Your task to perform on an android device: Add apple airpods pro to the cart on target.com Image 0: 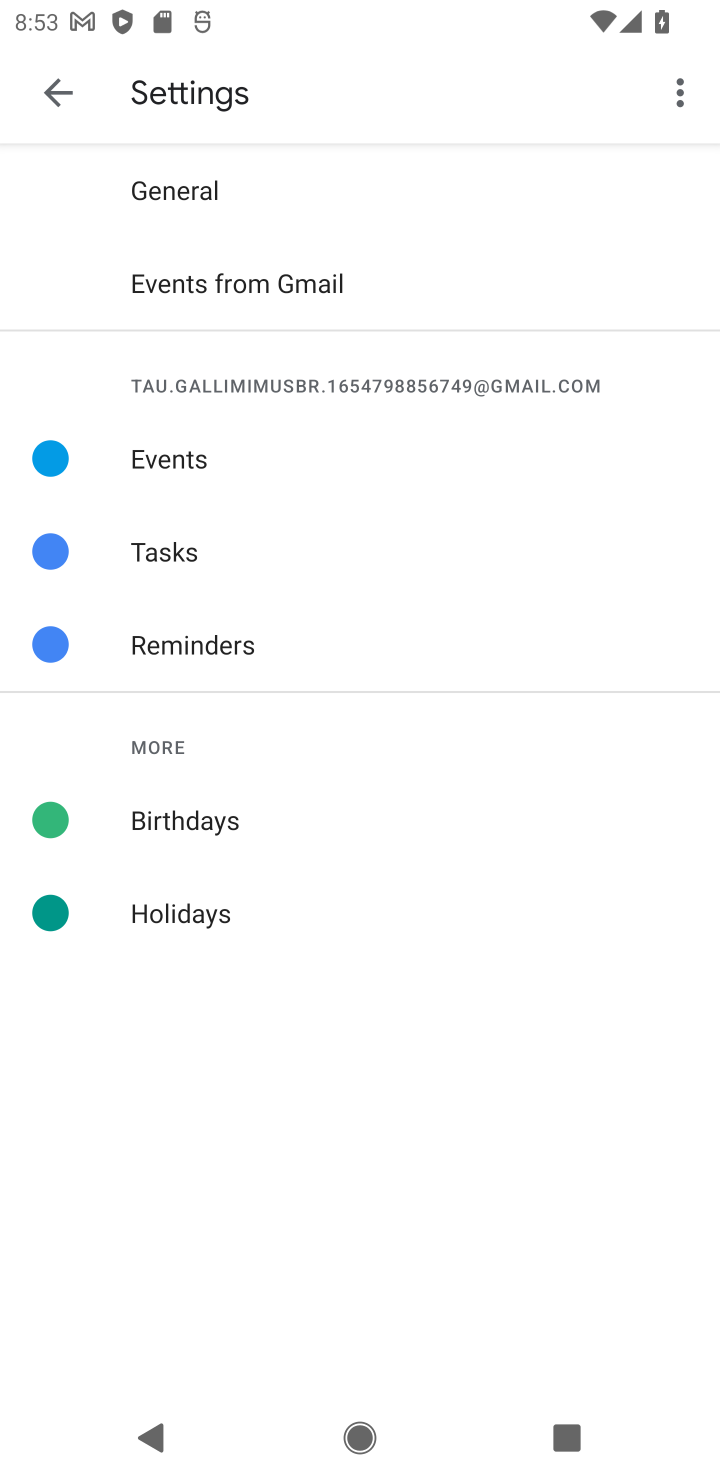
Step 0: press home button
Your task to perform on an android device: Add apple airpods pro to the cart on target.com Image 1: 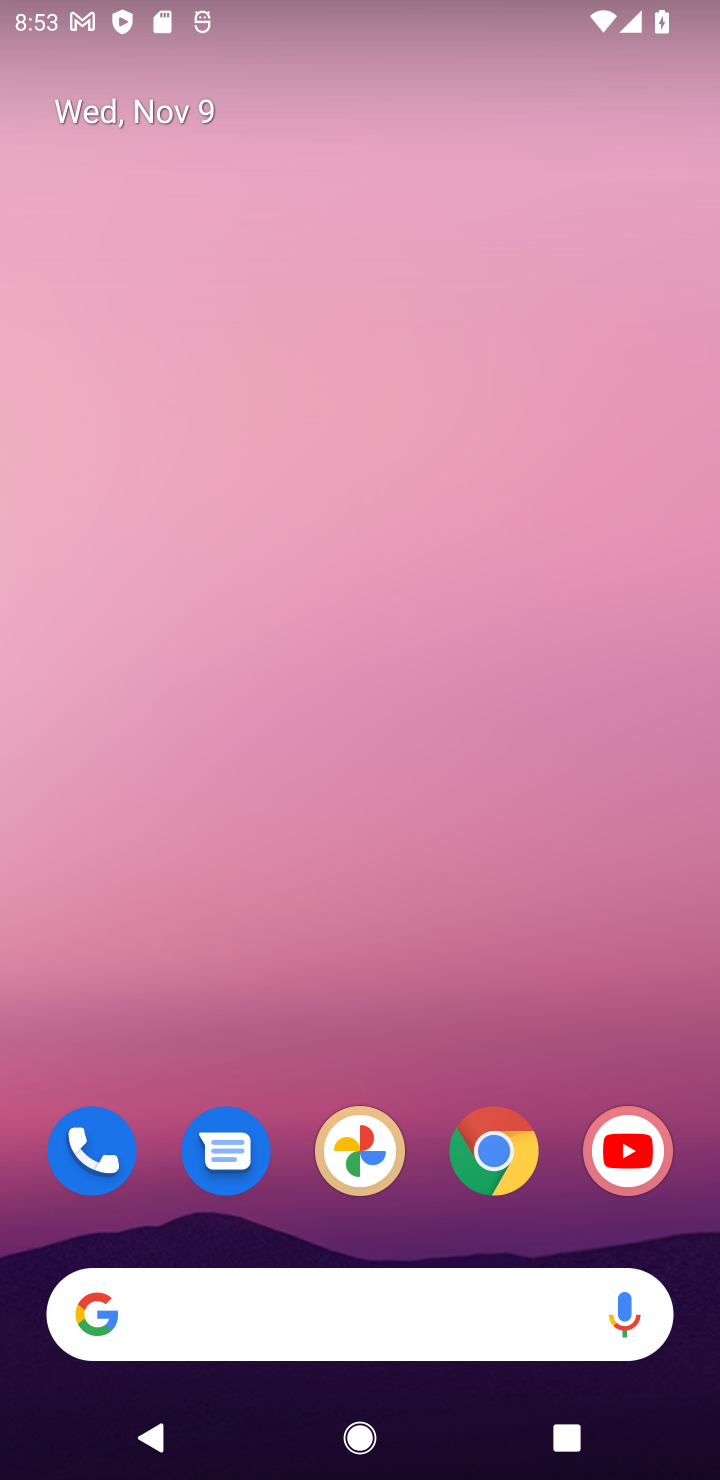
Step 1: click (484, 1150)
Your task to perform on an android device: Add apple airpods pro to the cart on target.com Image 2: 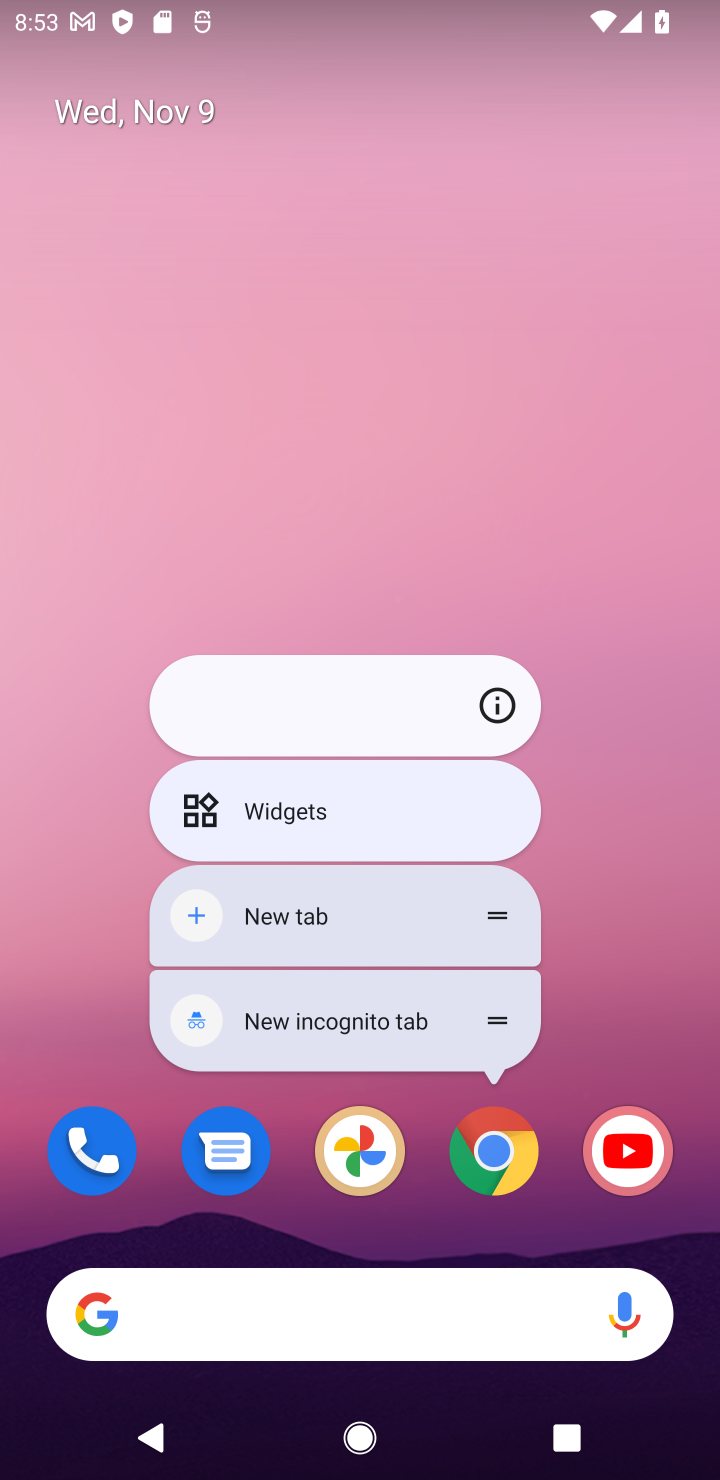
Step 2: click (513, 1174)
Your task to perform on an android device: Add apple airpods pro to the cart on target.com Image 3: 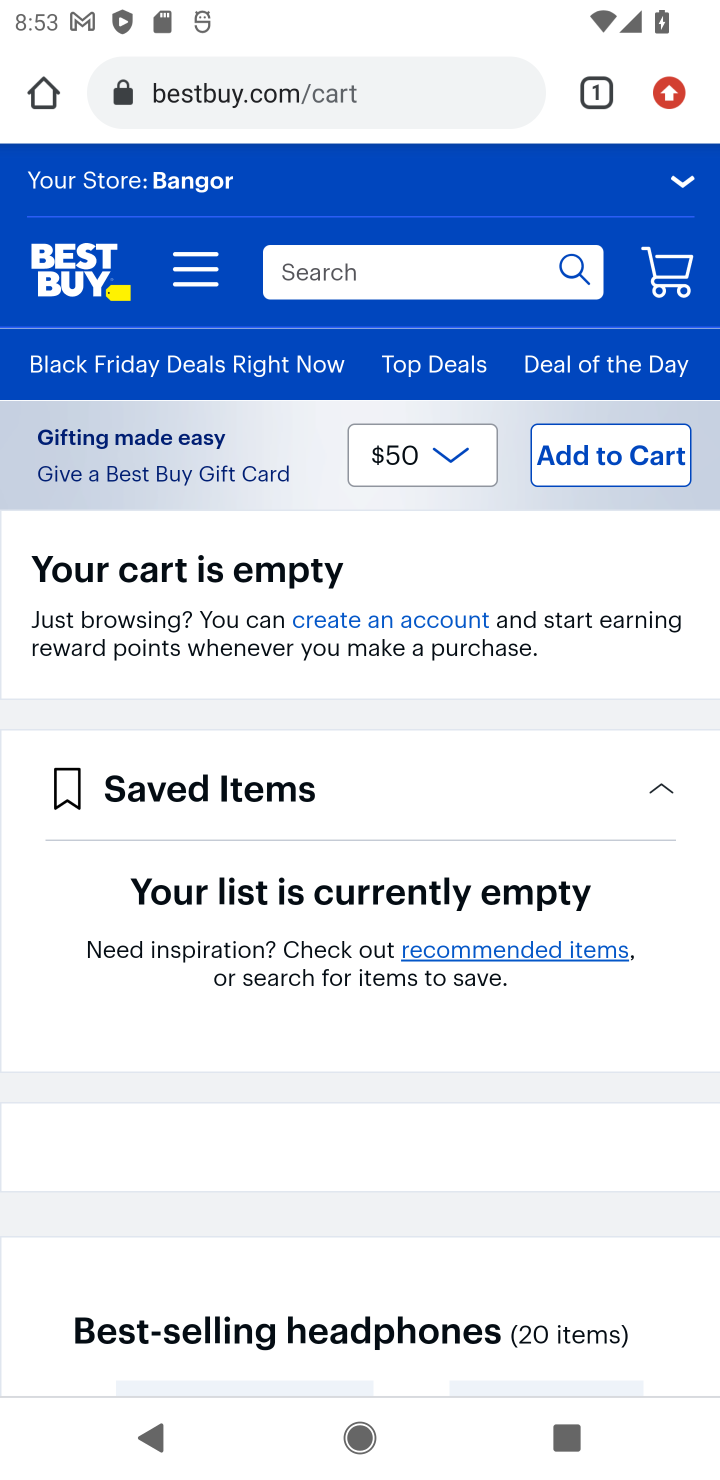
Step 3: click (226, 103)
Your task to perform on an android device: Add apple airpods pro to the cart on target.com Image 4: 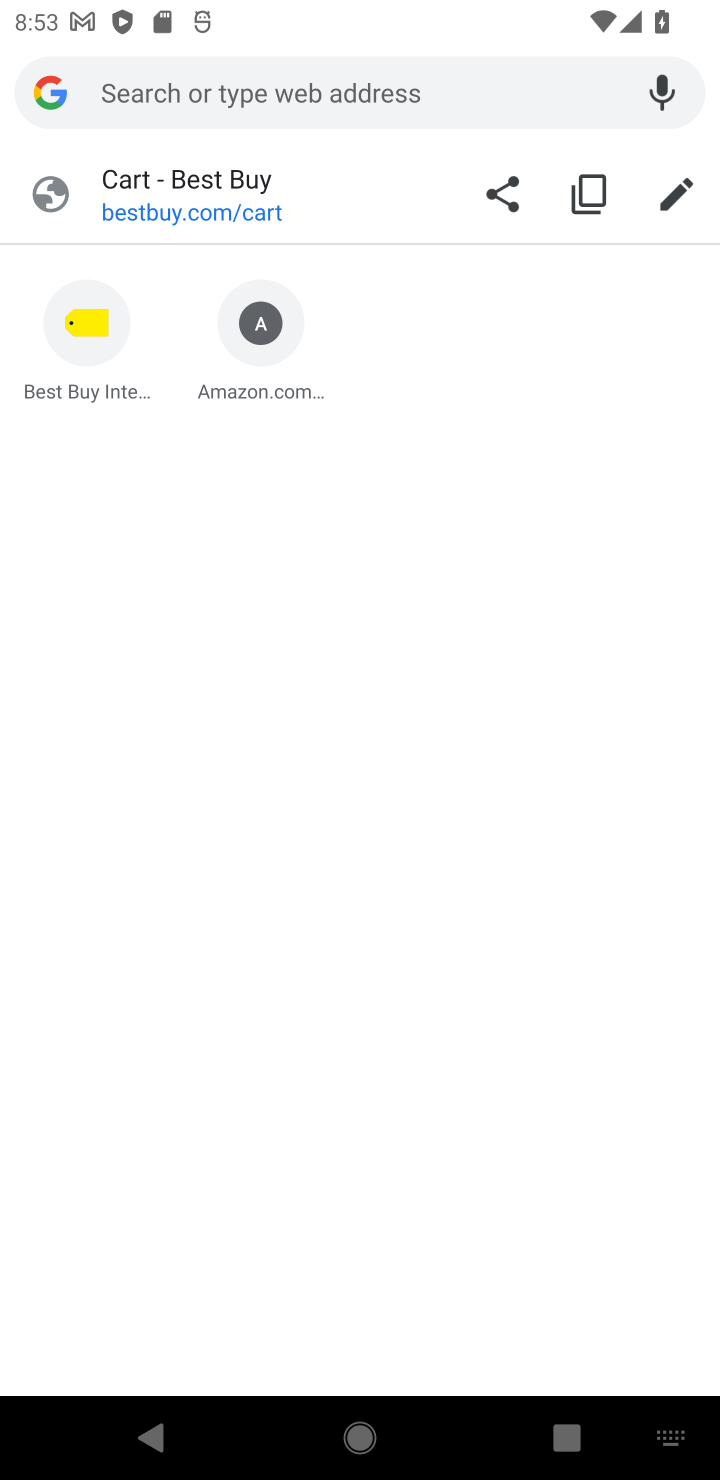
Step 4: type "target.com"
Your task to perform on an android device: Add apple airpods pro to the cart on target.com Image 5: 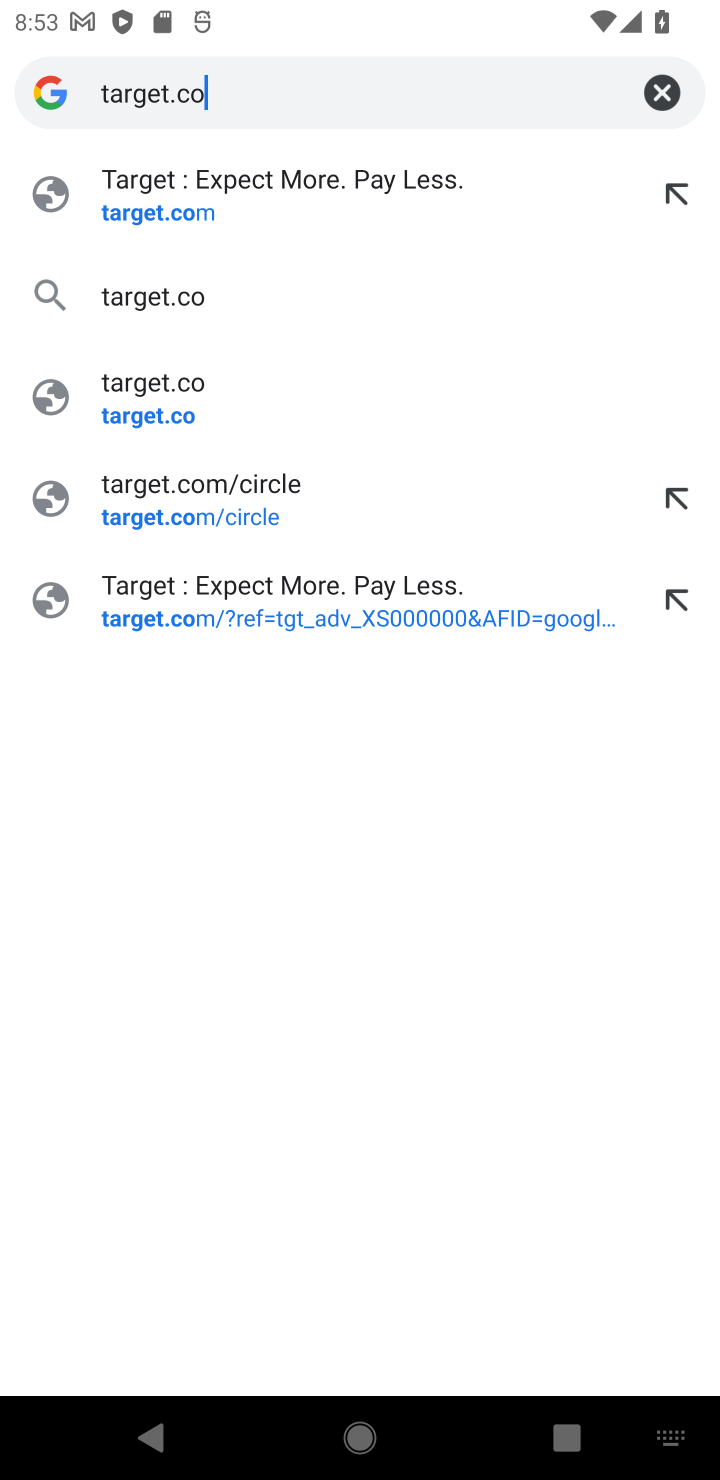
Step 5: press enter
Your task to perform on an android device: Add apple airpods pro to the cart on target.com Image 6: 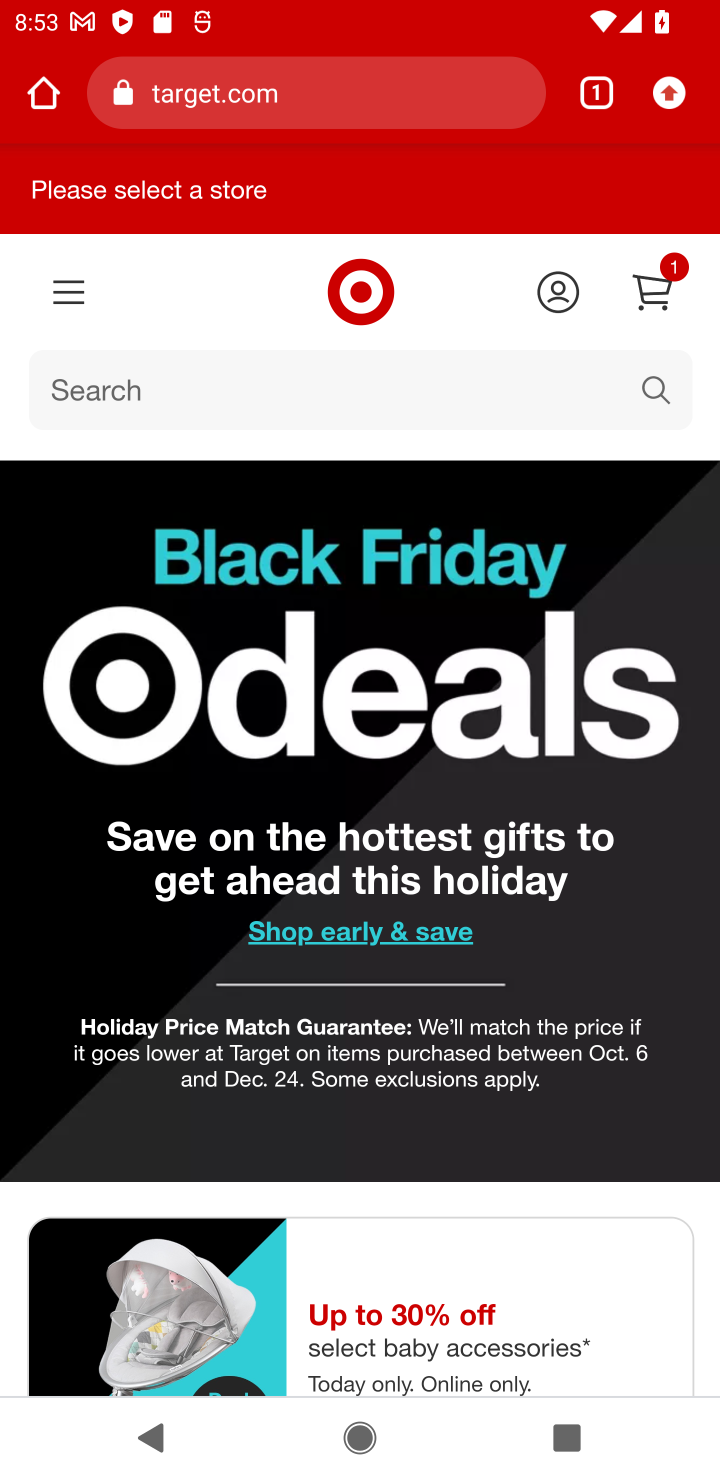
Step 6: click (307, 418)
Your task to perform on an android device: Add apple airpods pro to the cart on target.com Image 7: 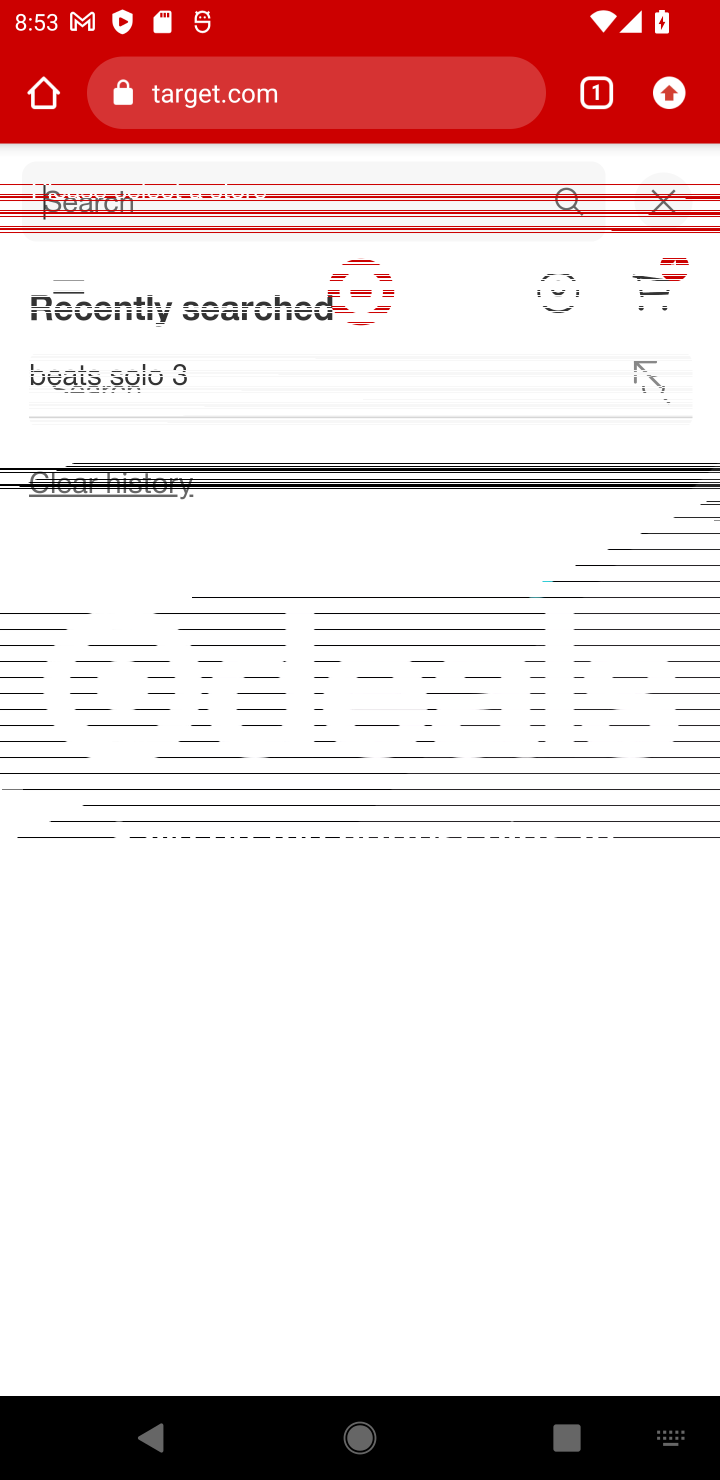
Step 7: type "apple airpods pro"
Your task to perform on an android device: Add apple airpods pro to the cart on target.com Image 8: 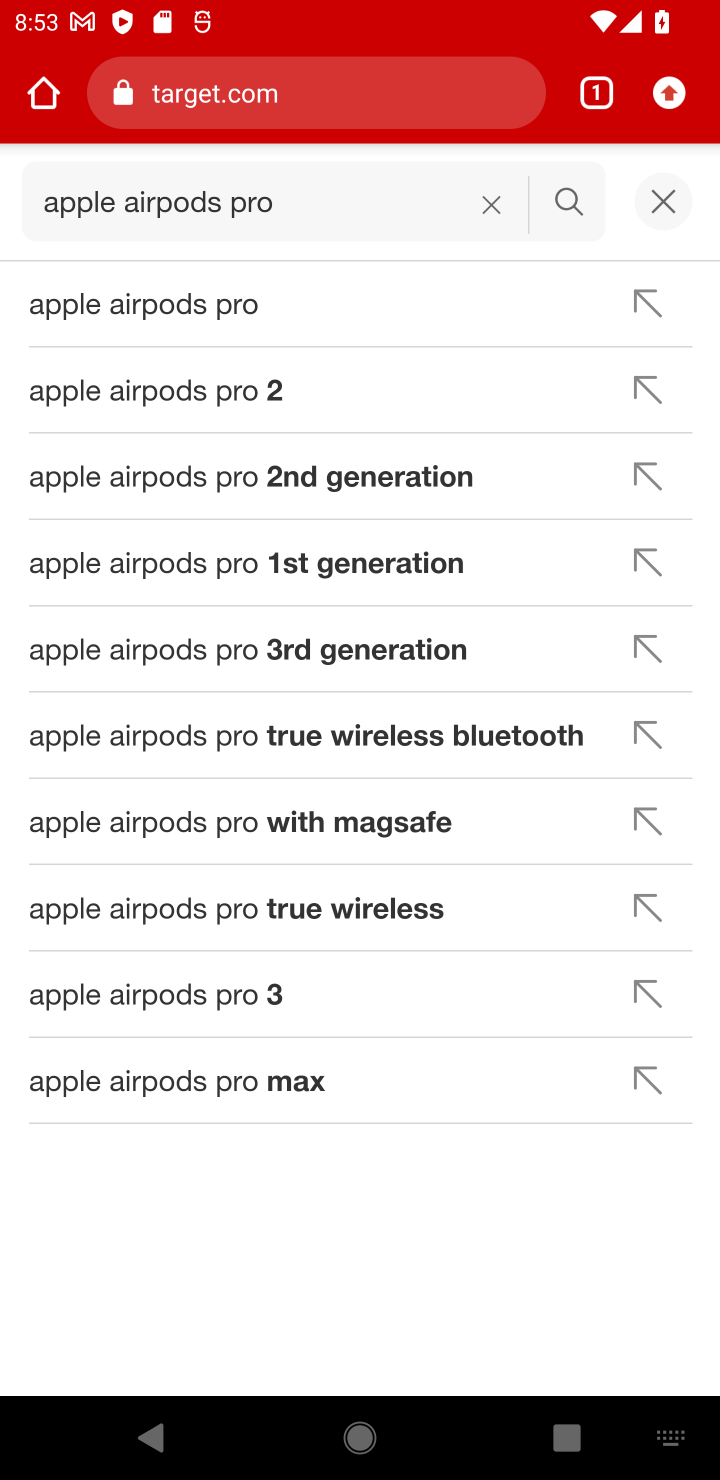
Step 8: press enter
Your task to perform on an android device: Add apple airpods pro to the cart on target.com Image 9: 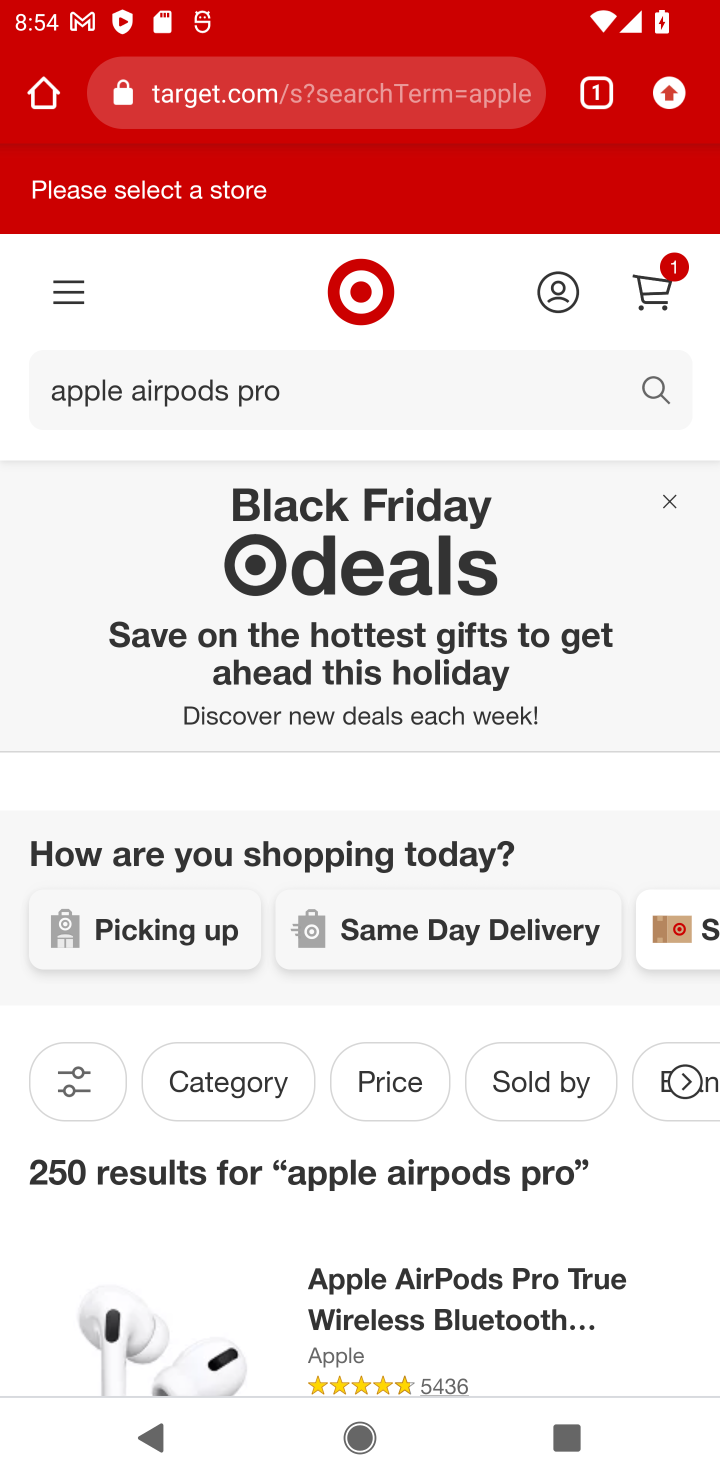
Step 9: click (387, 1303)
Your task to perform on an android device: Add apple airpods pro to the cart on target.com Image 10: 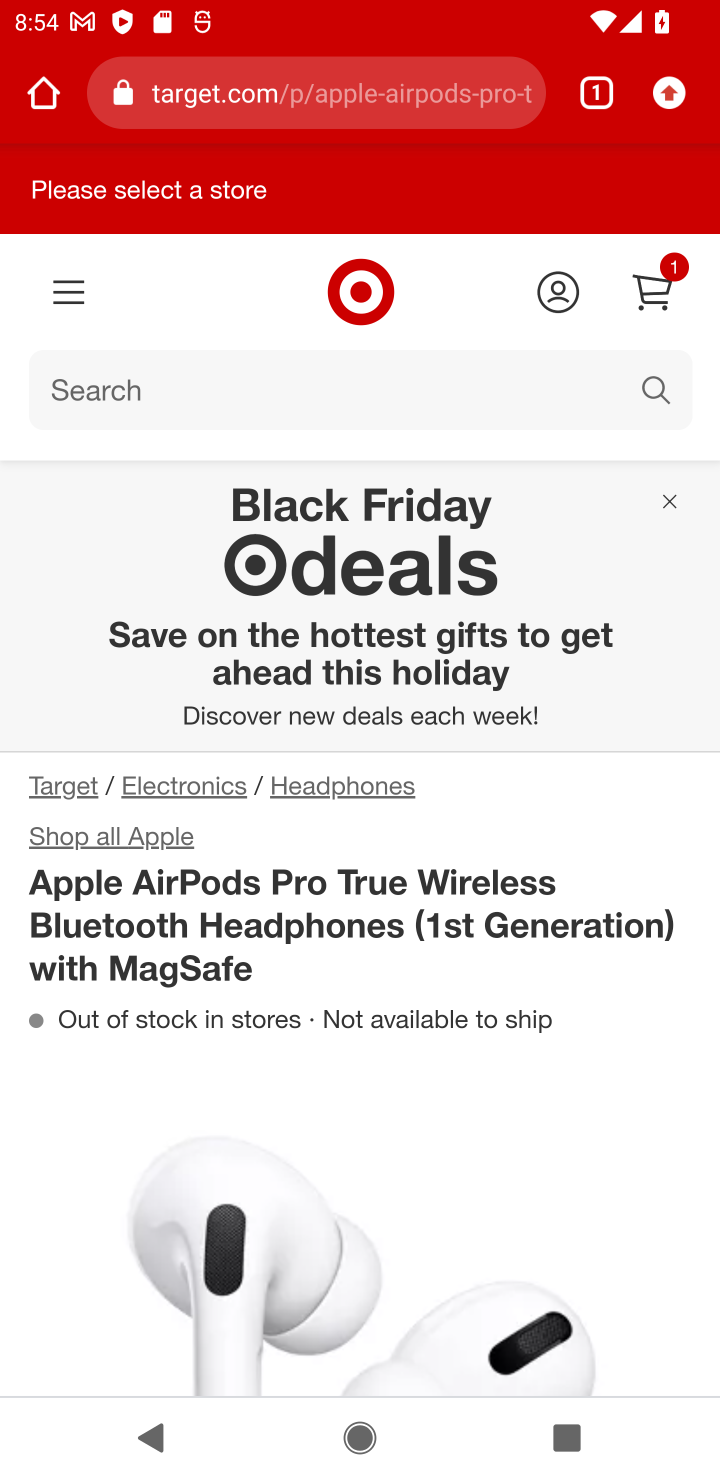
Step 10: drag from (441, 1033) to (442, 399)
Your task to perform on an android device: Add apple airpods pro to the cart on target.com Image 11: 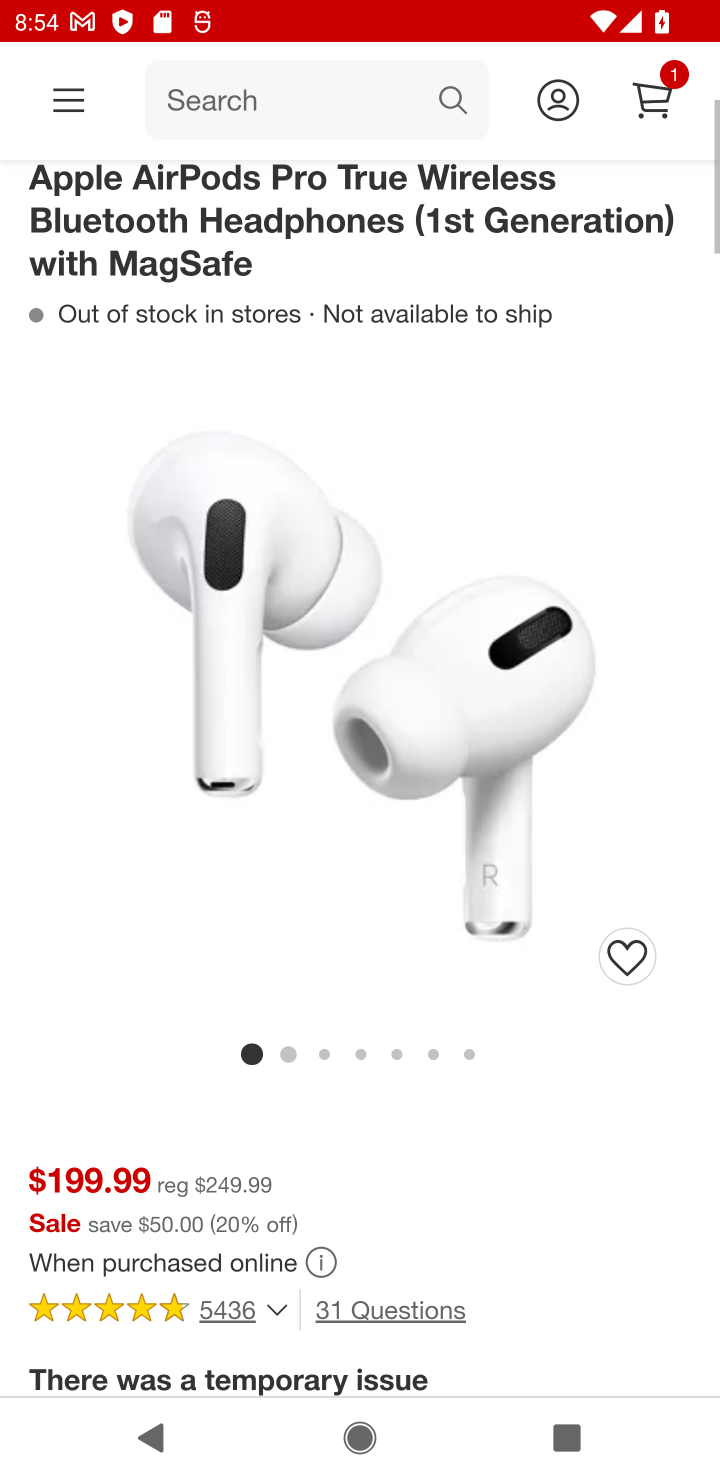
Step 11: drag from (466, 739) to (520, 271)
Your task to perform on an android device: Add apple airpods pro to the cart on target.com Image 12: 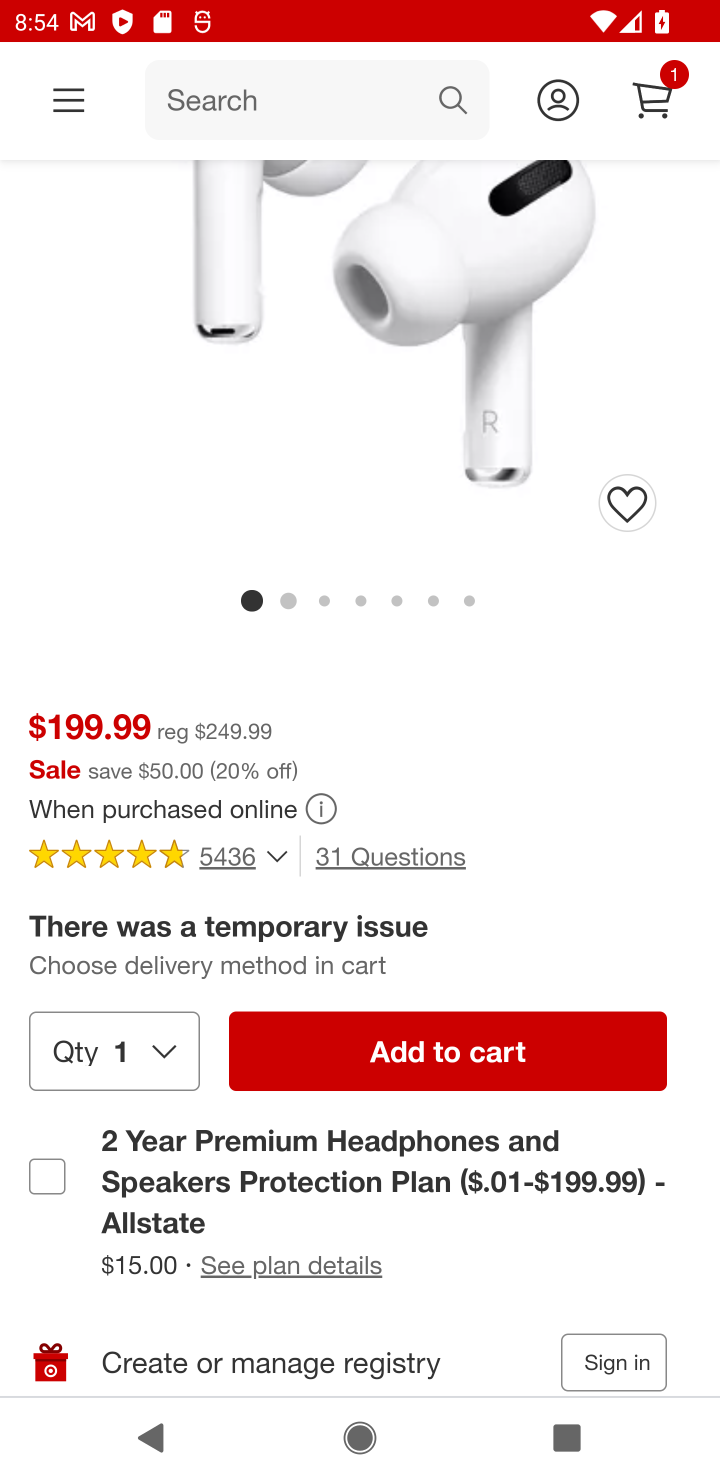
Step 12: click (409, 1054)
Your task to perform on an android device: Add apple airpods pro to the cart on target.com Image 13: 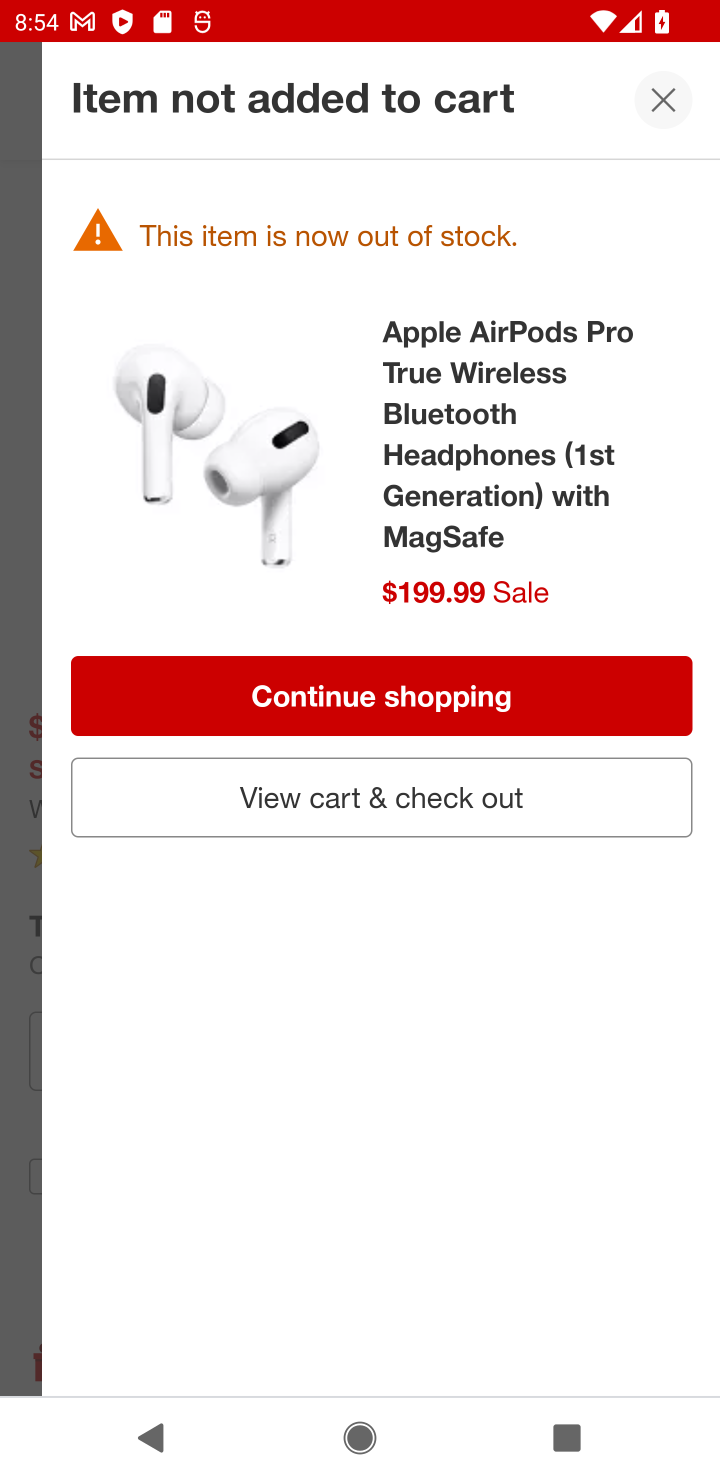
Step 13: click (442, 800)
Your task to perform on an android device: Add apple airpods pro to the cart on target.com Image 14: 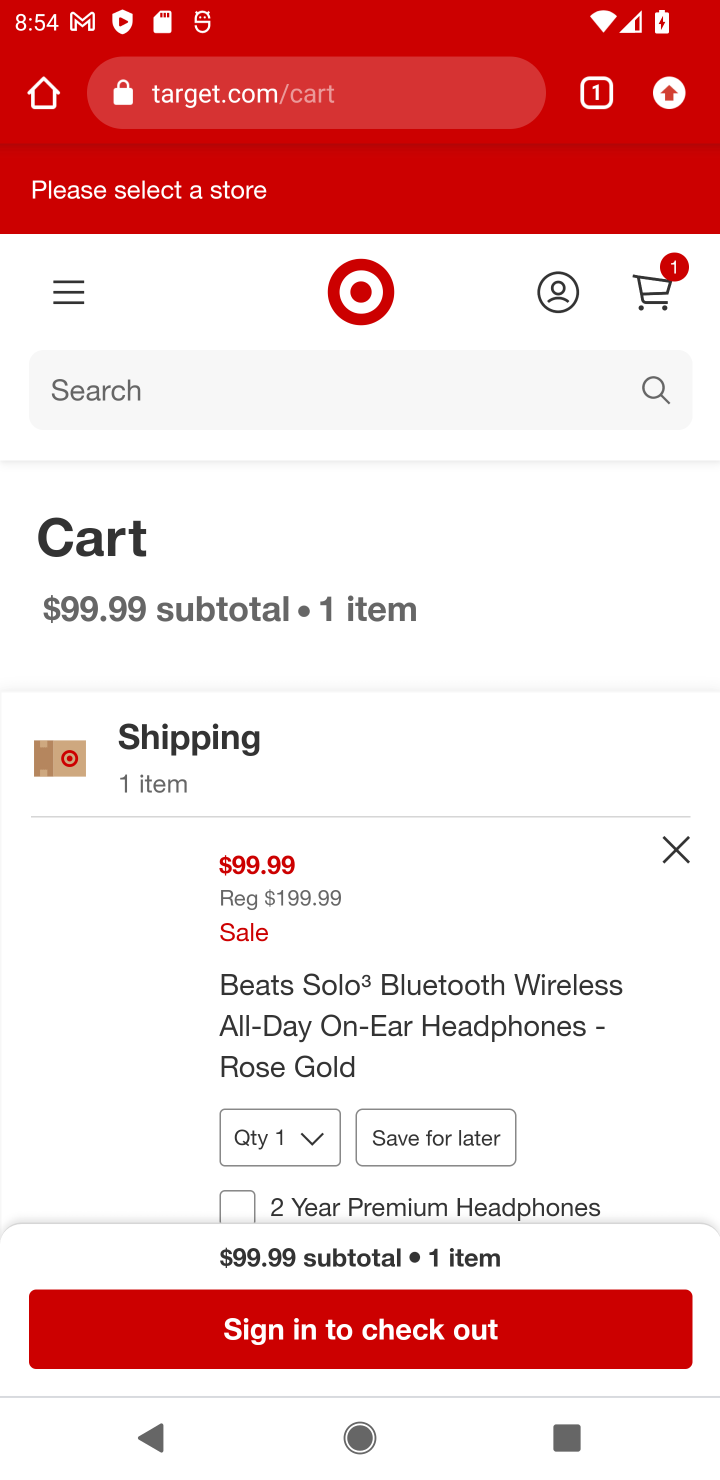
Step 14: task complete